Your task to perform on an android device: change the upload size in google photos Image 0: 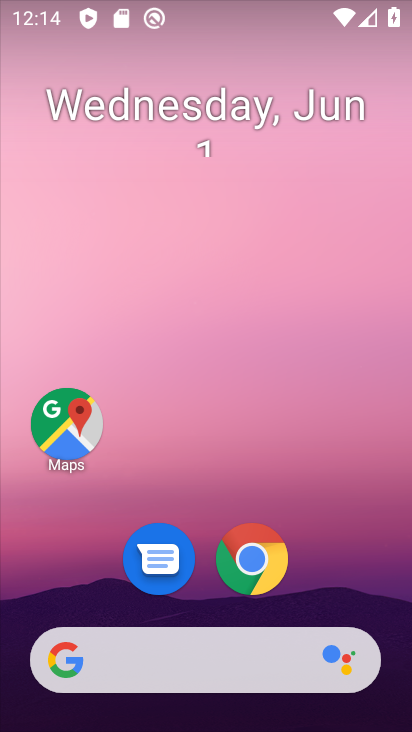
Step 0: drag from (320, 568) to (293, 271)
Your task to perform on an android device: change the upload size in google photos Image 1: 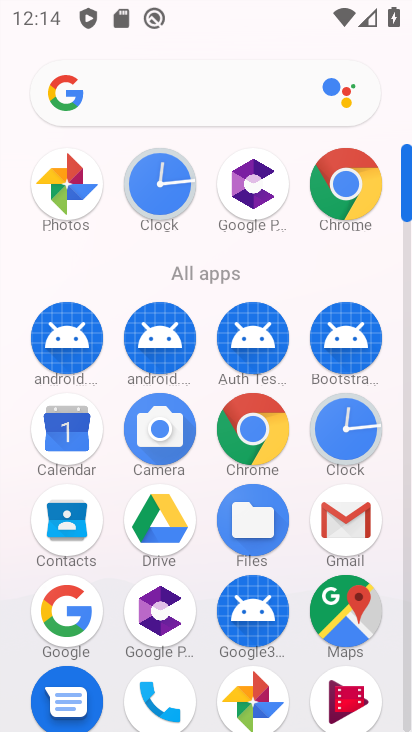
Step 1: click (250, 697)
Your task to perform on an android device: change the upload size in google photos Image 2: 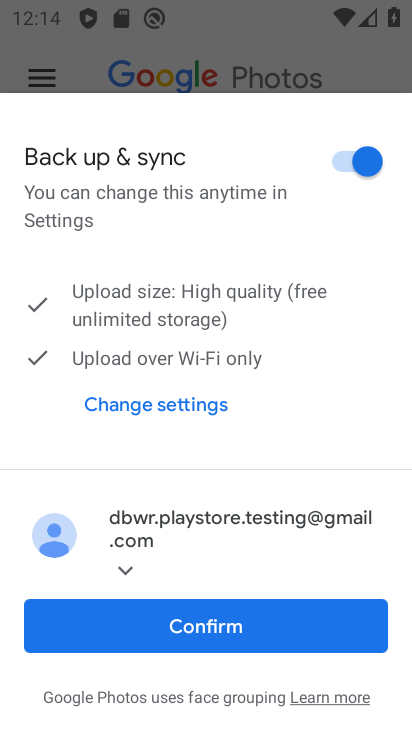
Step 2: click (219, 619)
Your task to perform on an android device: change the upload size in google photos Image 3: 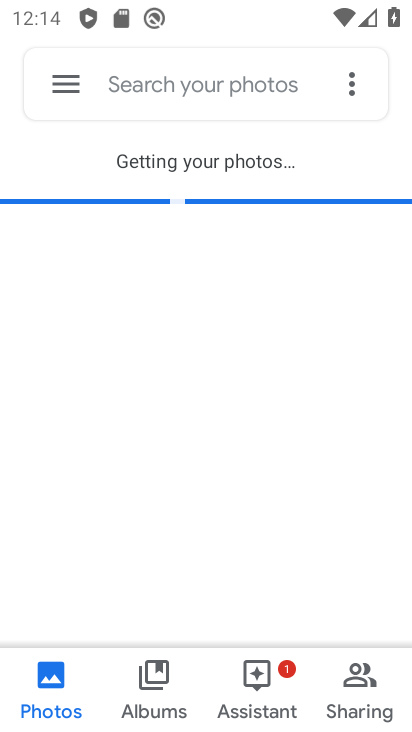
Step 3: click (158, 675)
Your task to perform on an android device: change the upload size in google photos Image 4: 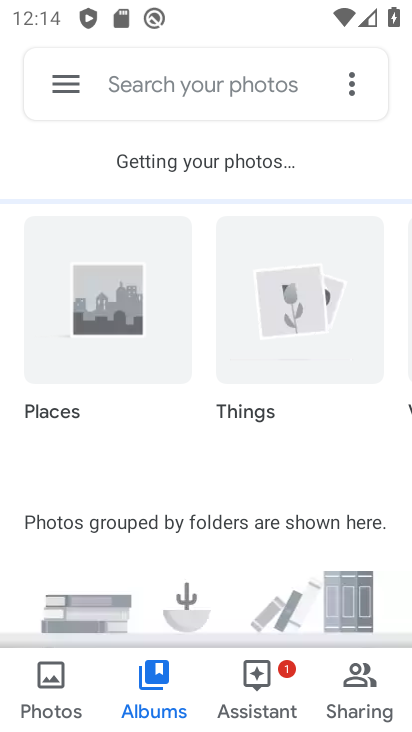
Step 4: task complete